Your task to perform on an android device: open sync settings in chrome Image 0: 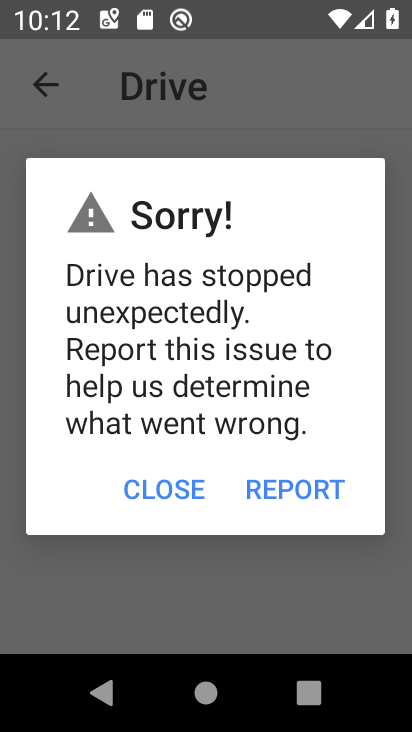
Step 0: press home button
Your task to perform on an android device: open sync settings in chrome Image 1: 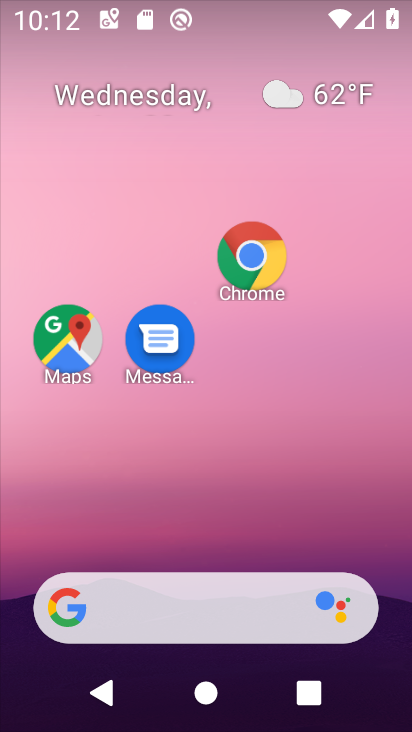
Step 1: click (257, 255)
Your task to perform on an android device: open sync settings in chrome Image 2: 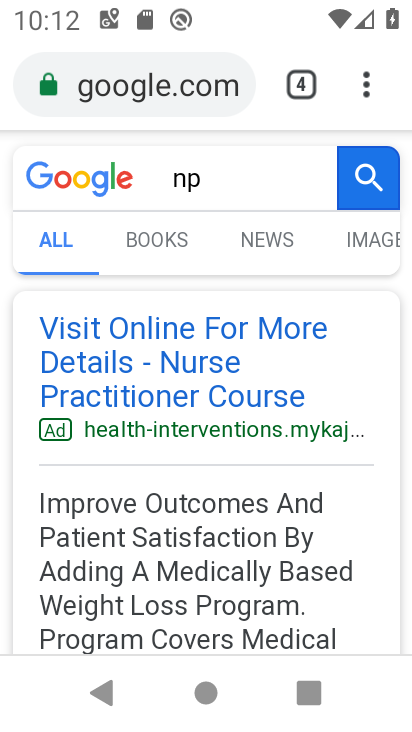
Step 2: click (362, 85)
Your task to perform on an android device: open sync settings in chrome Image 3: 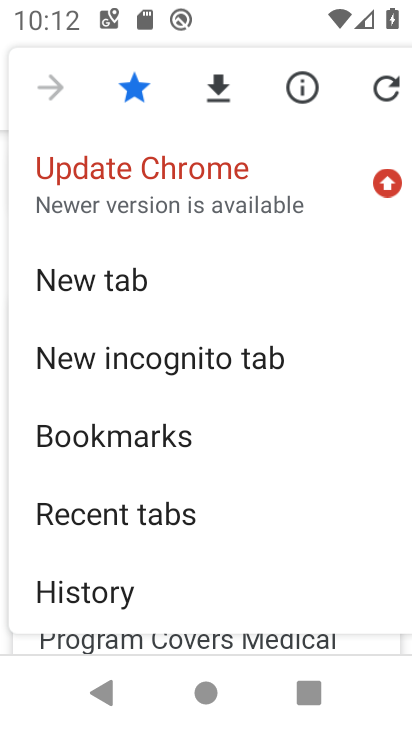
Step 3: drag from (311, 437) to (266, 19)
Your task to perform on an android device: open sync settings in chrome Image 4: 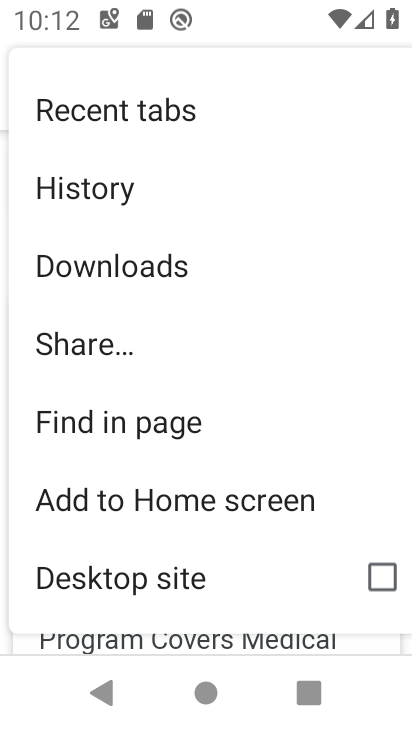
Step 4: drag from (224, 540) to (171, 121)
Your task to perform on an android device: open sync settings in chrome Image 5: 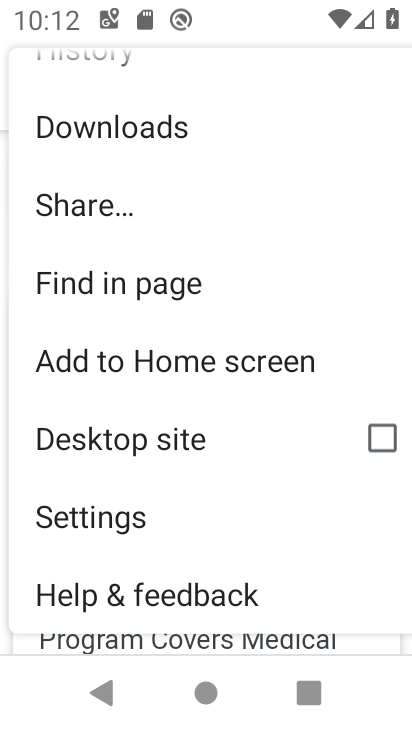
Step 5: click (143, 519)
Your task to perform on an android device: open sync settings in chrome Image 6: 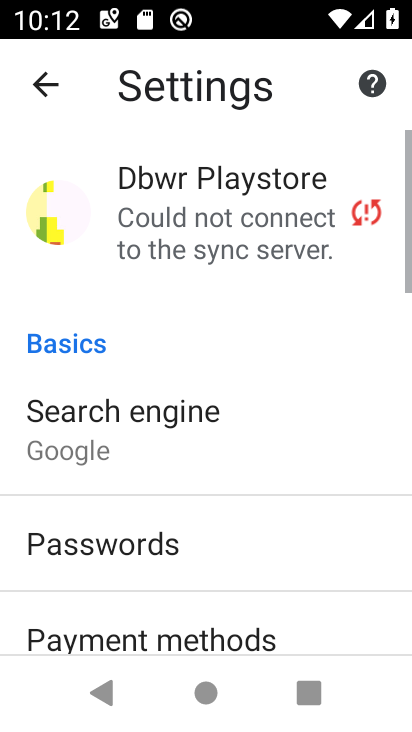
Step 6: drag from (257, 554) to (250, 170)
Your task to perform on an android device: open sync settings in chrome Image 7: 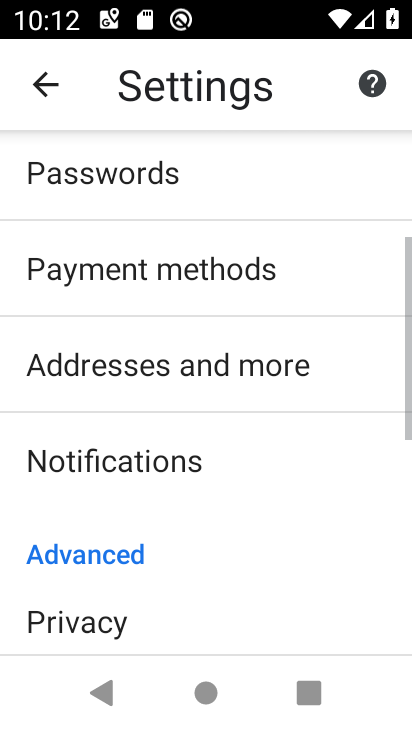
Step 7: drag from (227, 517) to (221, 99)
Your task to perform on an android device: open sync settings in chrome Image 8: 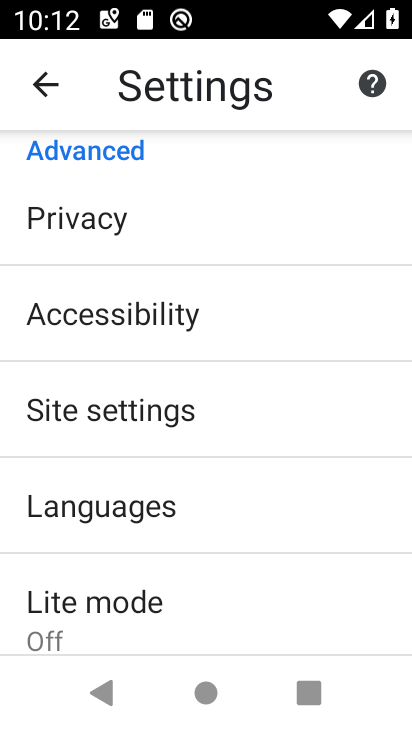
Step 8: click (126, 402)
Your task to perform on an android device: open sync settings in chrome Image 9: 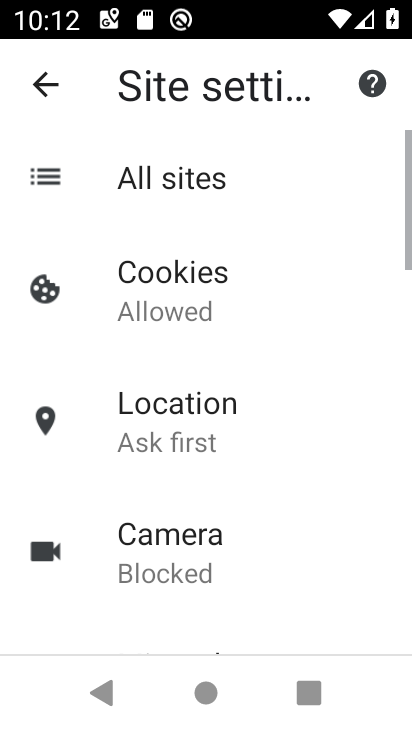
Step 9: drag from (258, 548) to (219, 231)
Your task to perform on an android device: open sync settings in chrome Image 10: 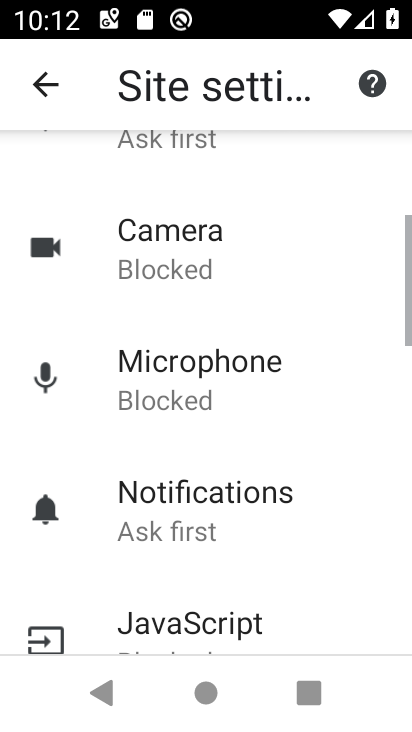
Step 10: drag from (232, 635) to (233, 277)
Your task to perform on an android device: open sync settings in chrome Image 11: 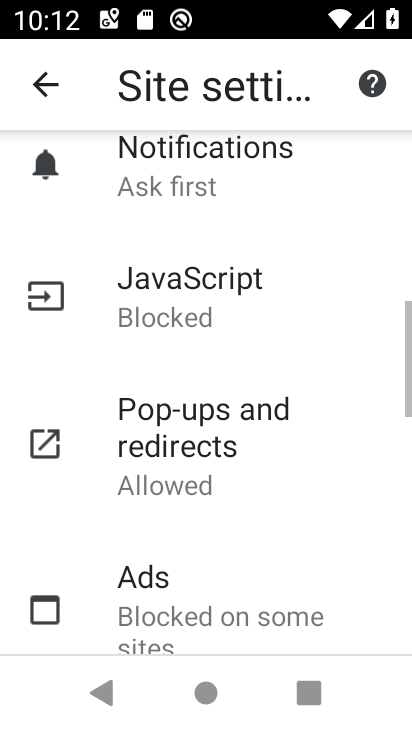
Step 11: drag from (232, 562) to (227, 153)
Your task to perform on an android device: open sync settings in chrome Image 12: 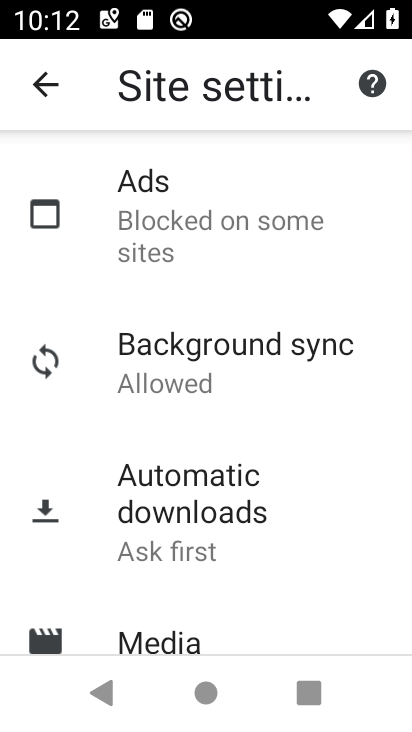
Step 12: click (198, 348)
Your task to perform on an android device: open sync settings in chrome Image 13: 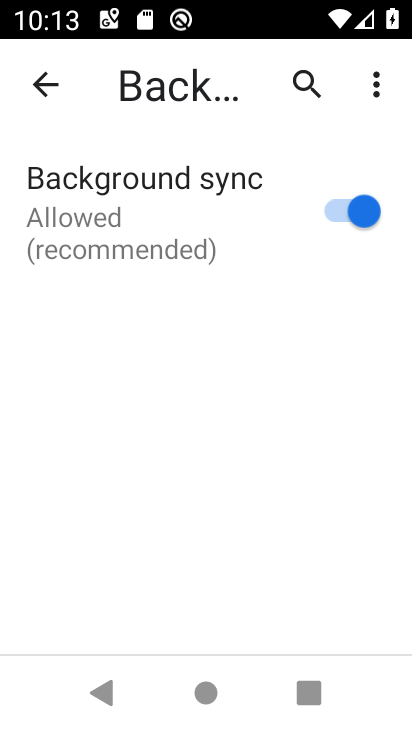
Step 13: task complete